Your task to perform on an android device: change notification settings in the gmail app Image 0: 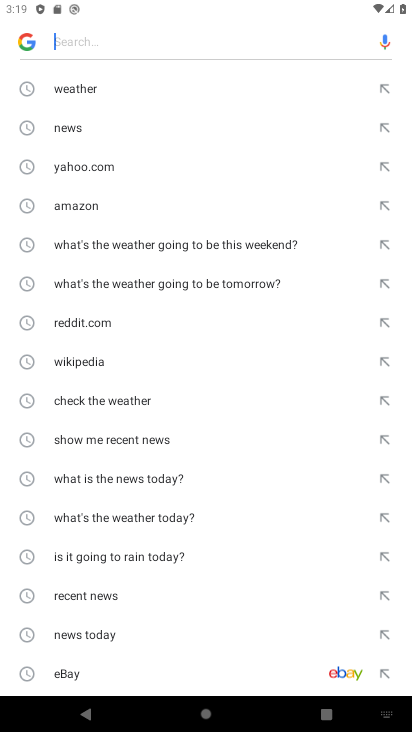
Step 0: press home button
Your task to perform on an android device: change notification settings in the gmail app Image 1: 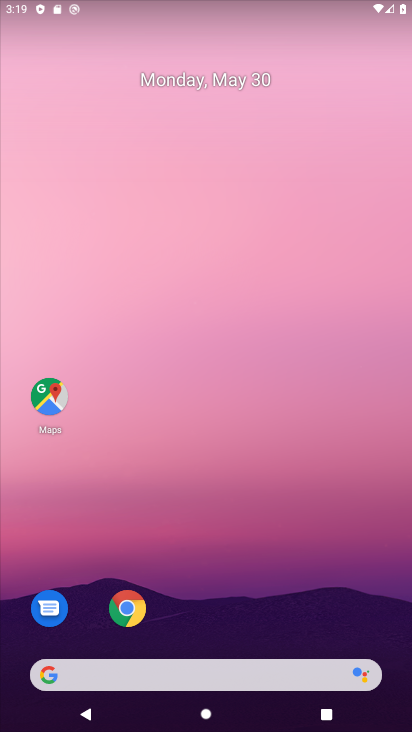
Step 1: click (240, 626)
Your task to perform on an android device: change notification settings in the gmail app Image 2: 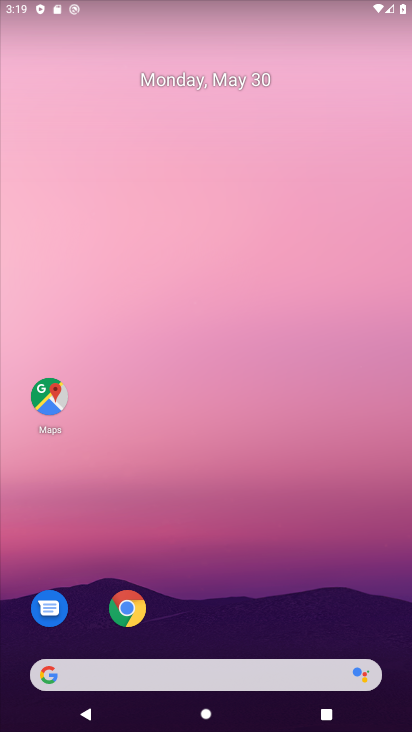
Step 2: drag from (260, 660) to (216, 304)
Your task to perform on an android device: change notification settings in the gmail app Image 3: 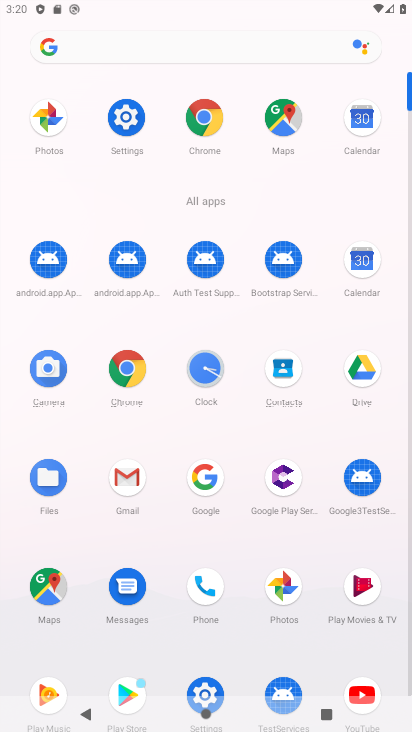
Step 3: click (131, 480)
Your task to perform on an android device: change notification settings in the gmail app Image 4: 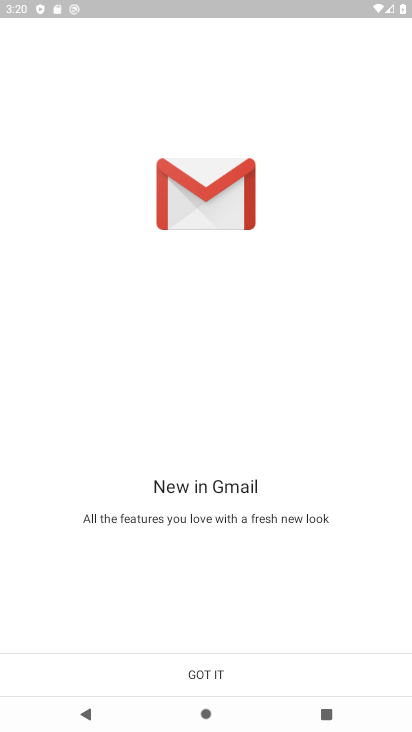
Step 4: click (230, 679)
Your task to perform on an android device: change notification settings in the gmail app Image 5: 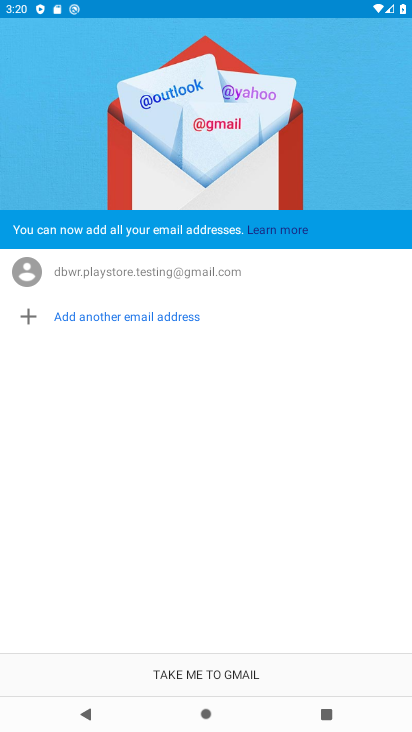
Step 5: click (209, 665)
Your task to perform on an android device: change notification settings in the gmail app Image 6: 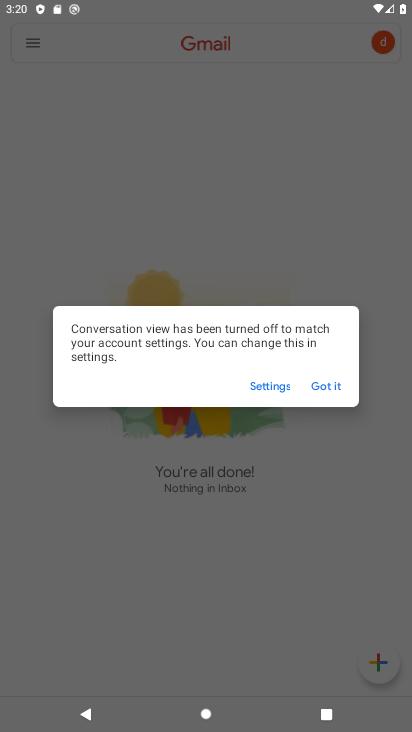
Step 6: click (322, 381)
Your task to perform on an android device: change notification settings in the gmail app Image 7: 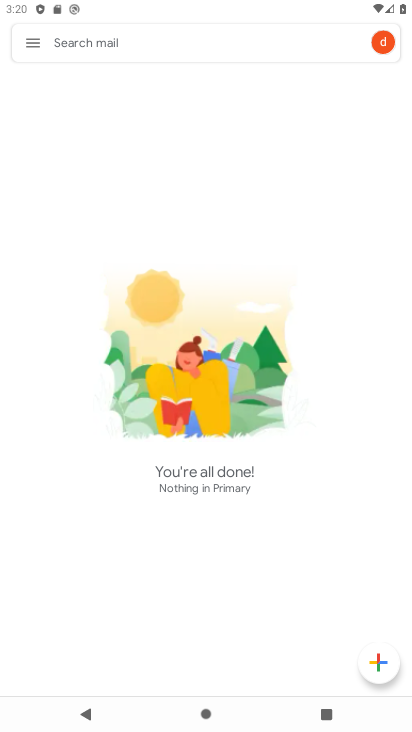
Step 7: click (36, 39)
Your task to perform on an android device: change notification settings in the gmail app Image 8: 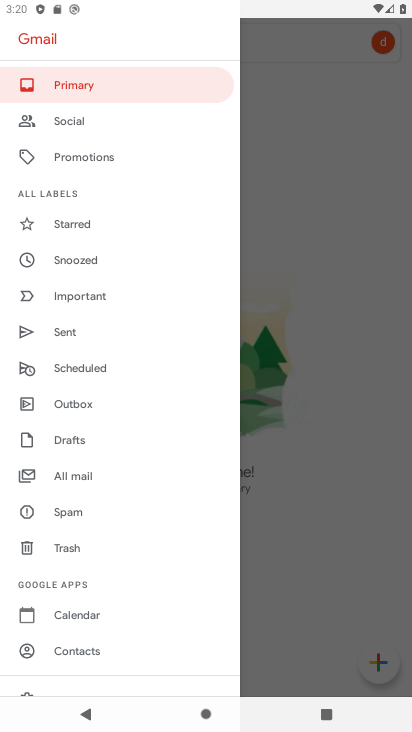
Step 8: drag from (109, 589) to (143, 458)
Your task to perform on an android device: change notification settings in the gmail app Image 9: 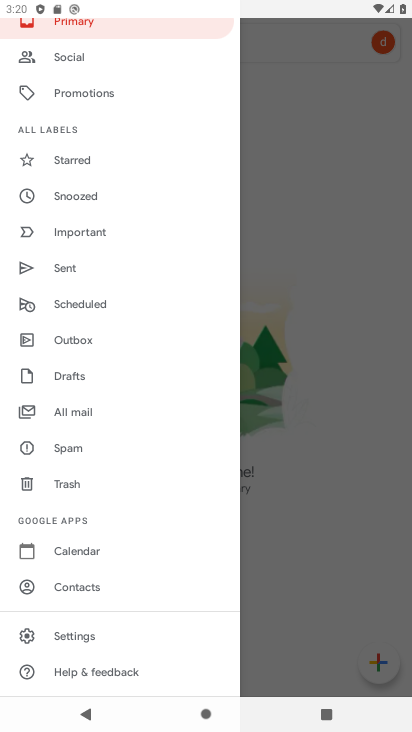
Step 9: click (85, 632)
Your task to perform on an android device: change notification settings in the gmail app Image 10: 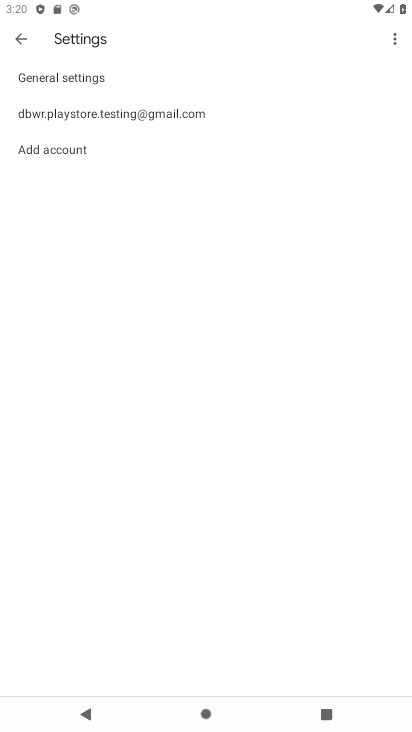
Step 10: click (76, 100)
Your task to perform on an android device: change notification settings in the gmail app Image 11: 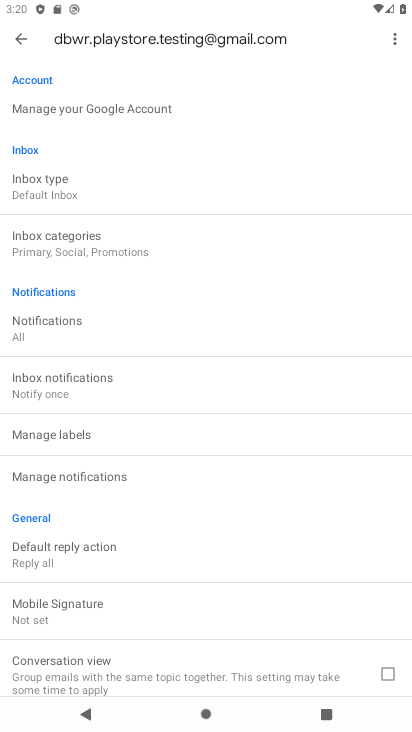
Step 11: click (59, 325)
Your task to perform on an android device: change notification settings in the gmail app Image 12: 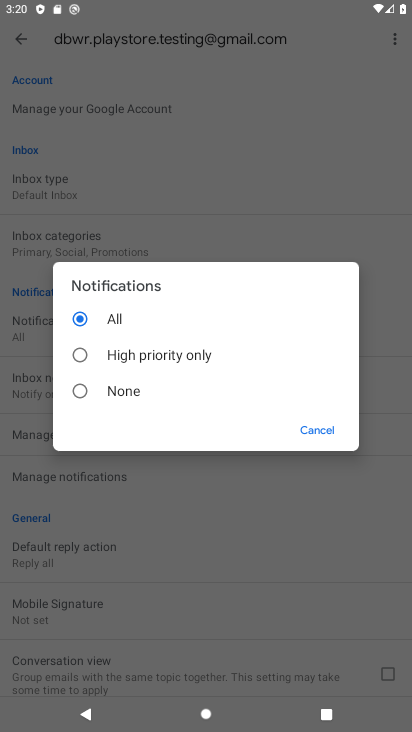
Step 12: click (81, 375)
Your task to perform on an android device: change notification settings in the gmail app Image 13: 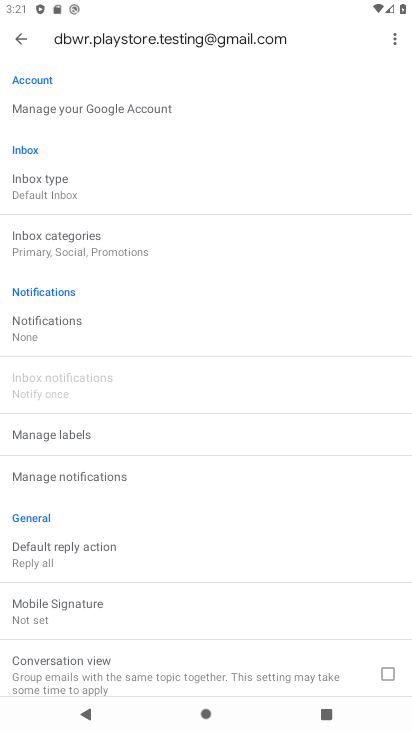
Step 13: task complete